Your task to perform on an android device: What's the top post on reddit right now? Image 0: 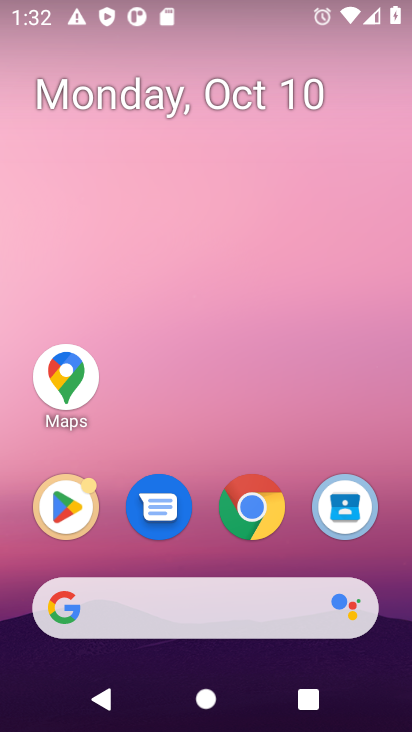
Step 0: press home button
Your task to perform on an android device: What's the top post on reddit right now? Image 1: 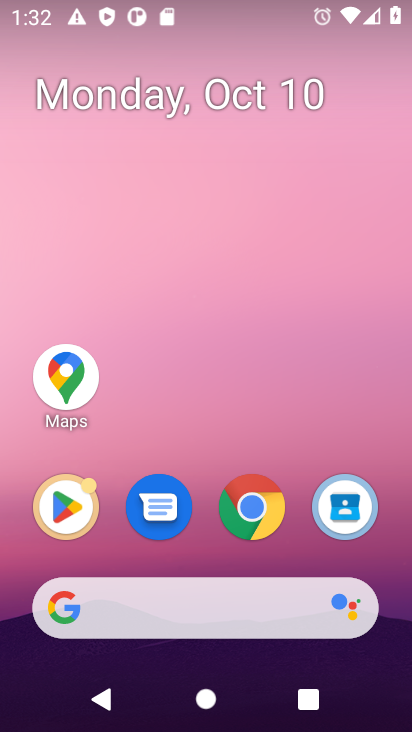
Step 1: click (247, 616)
Your task to perform on an android device: What's the top post on reddit right now? Image 2: 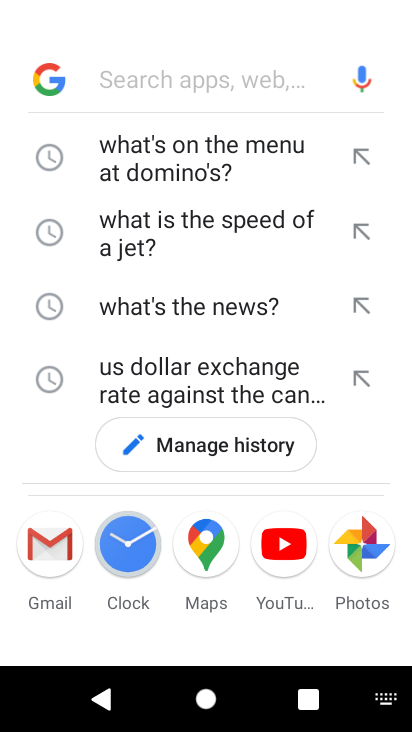
Step 2: type "What's the top post on reddit right now"
Your task to perform on an android device: What's the top post on reddit right now? Image 3: 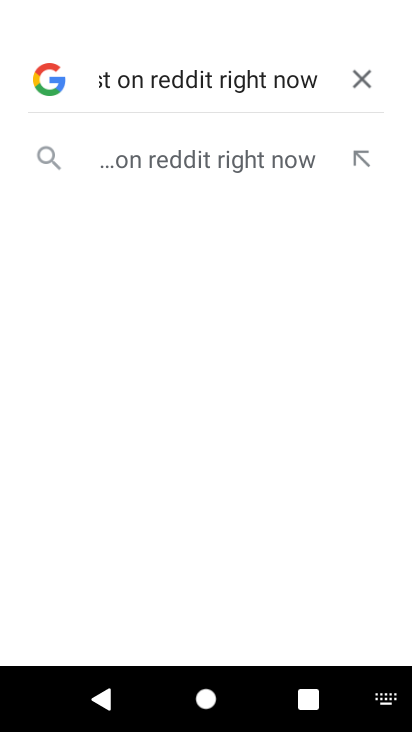
Step 3: press enter
Your task to perform on an android device: What's the top post on reddit right now? Image 4: 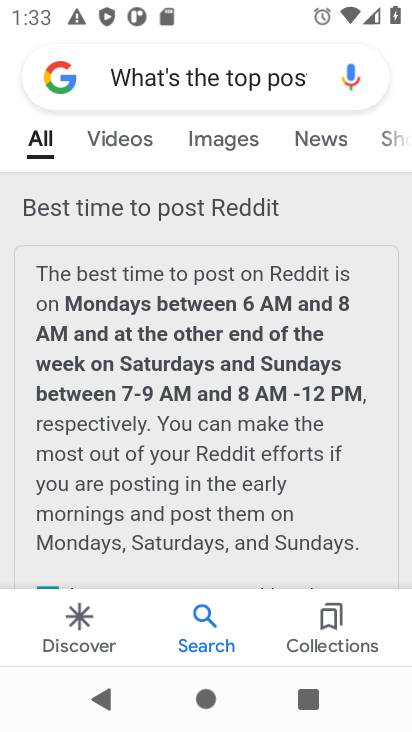
Step 4: task complete